Your task to perform on an android device: manage bookmarks in the chrome app Image 0: 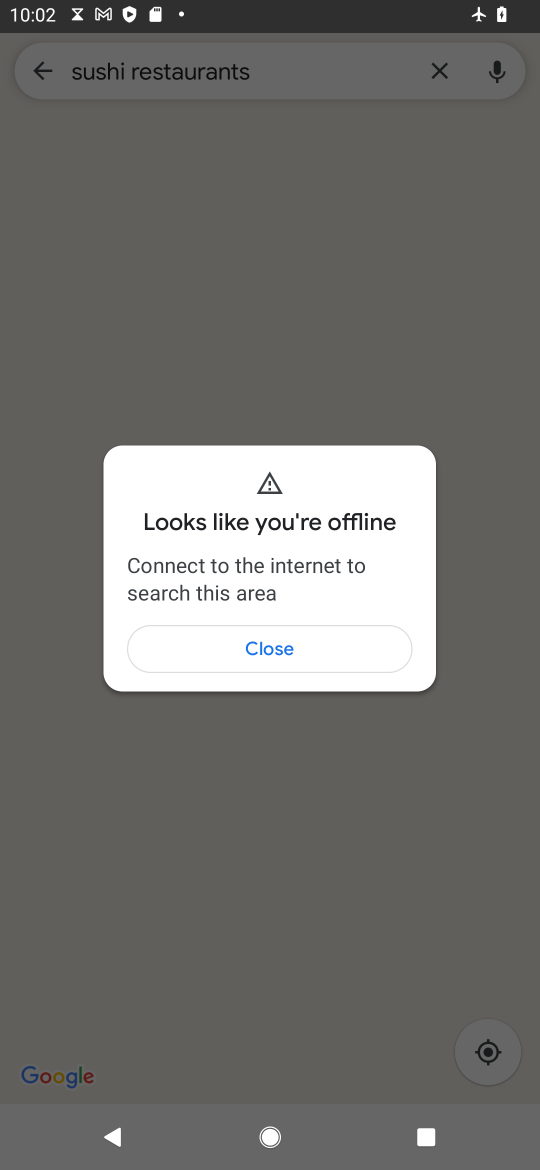
Step 0: press back button
Your task to perform on an android device: manage bookmarks in the chrome app Image 1: 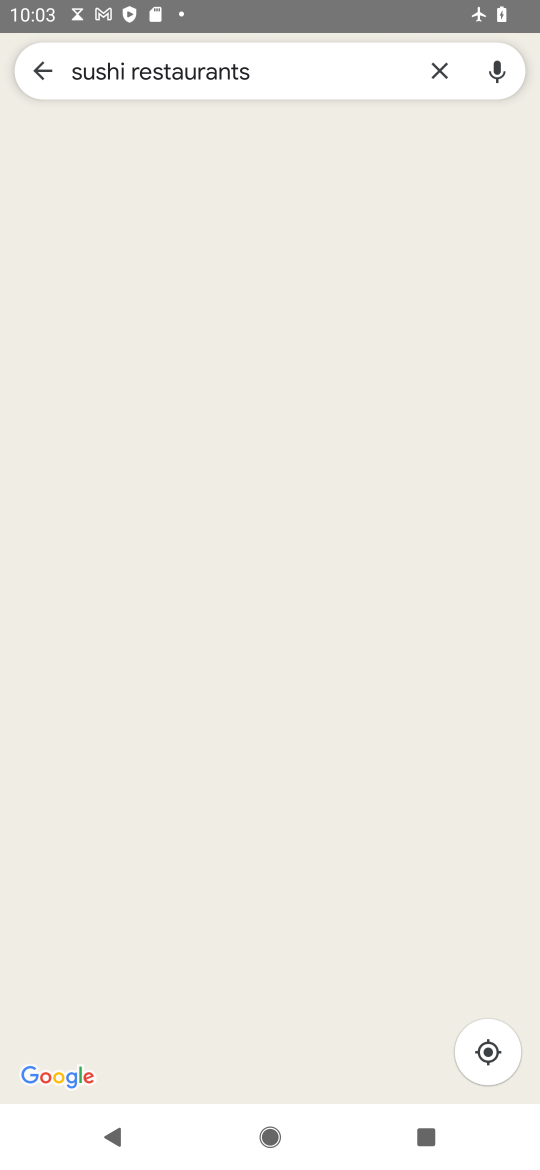
Step 1: press home button
Your task to perform on an android device: manage bookmarks in the chrome app Image 2: 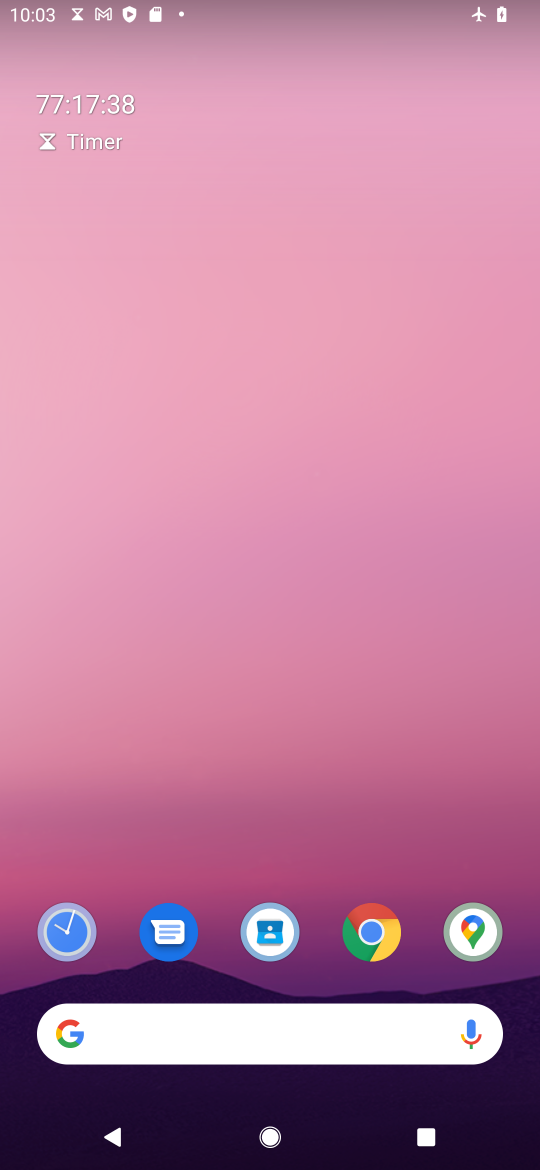
Step 2: click (370, 928)
Your task to perform on an android device: manage bookmarks in the chrome app Image 3: 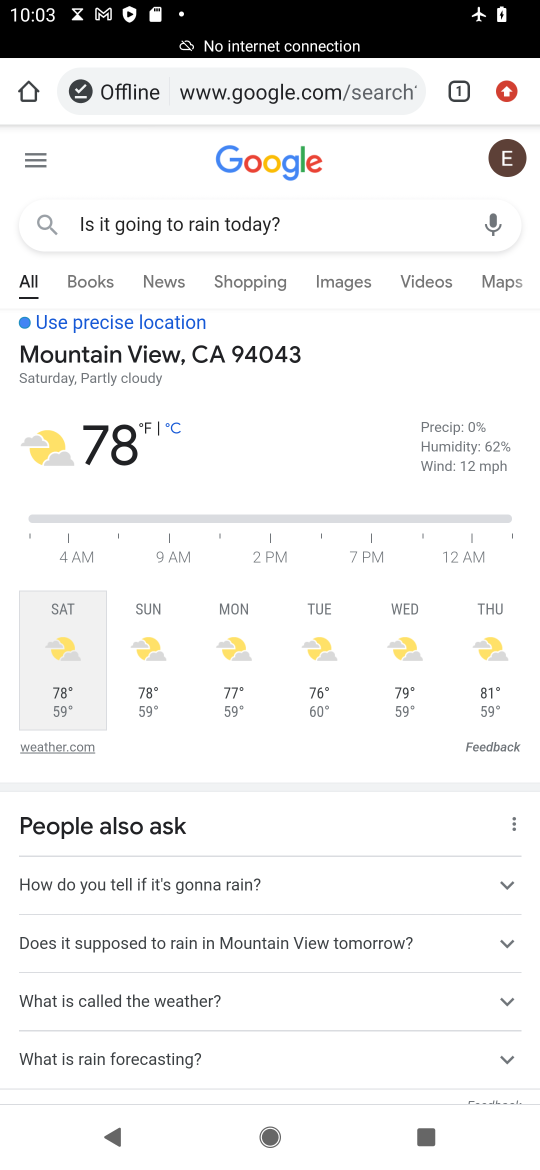
Step 3: click (510, 87)
Your task to perform on an android device: manage bookmarks in the chrome app Image 4: 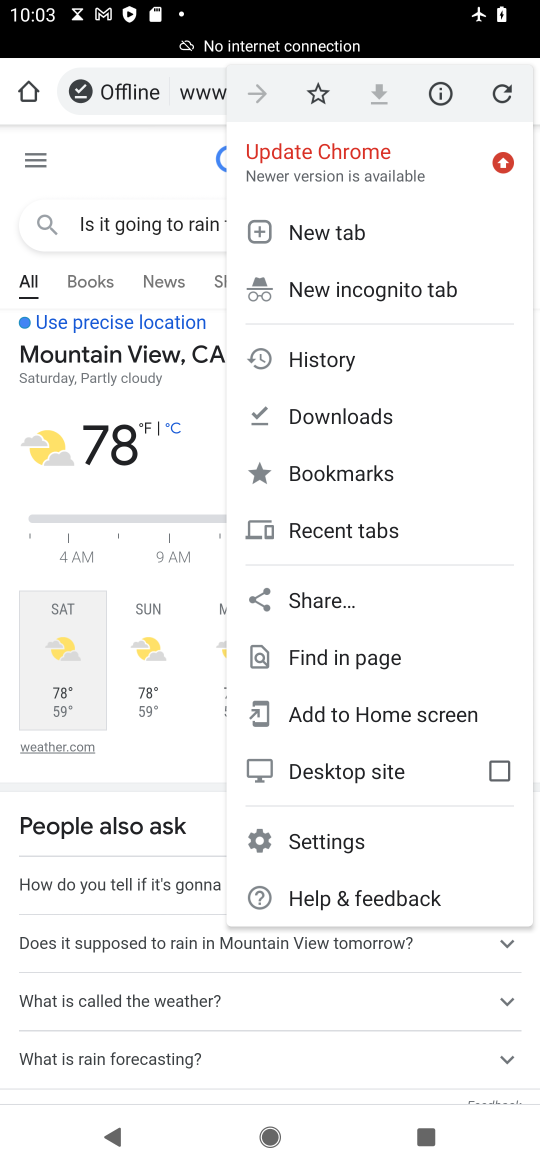
Step 4: click (324, 475)
Your task to perform on an android device: manage bookmarks in the chrome app Image 5: 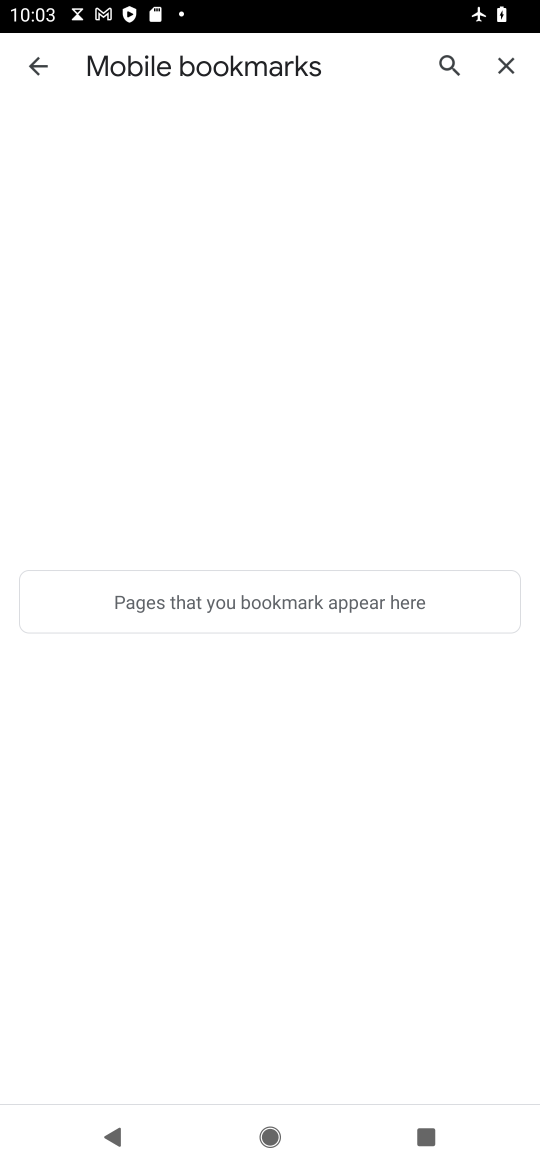
Step 5: task complete